Your task to perform on an android device: change the clock style Image 0: 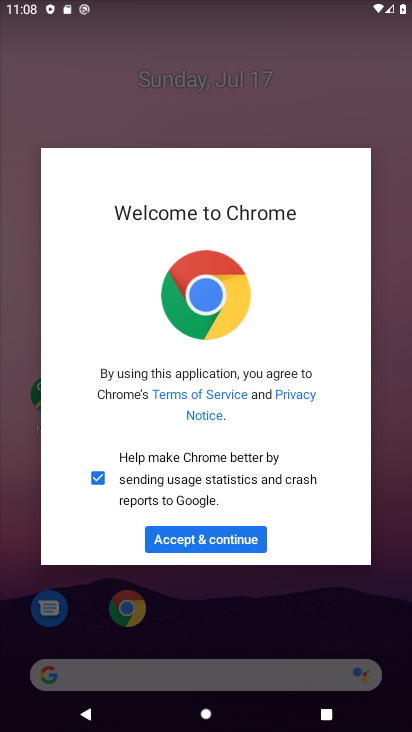
Step 0: press home button
Your task to perform on an android device: change the clock style Image 1: 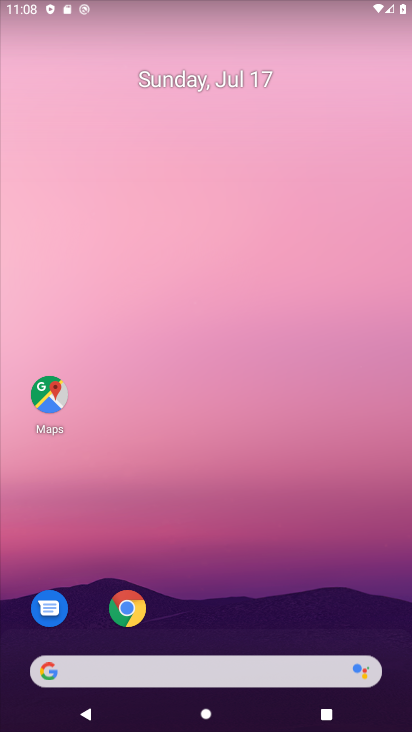
Step 1: drag from (218, 641) to (194, 28)
Your task to perform on an android device: change the clock style Image 2: 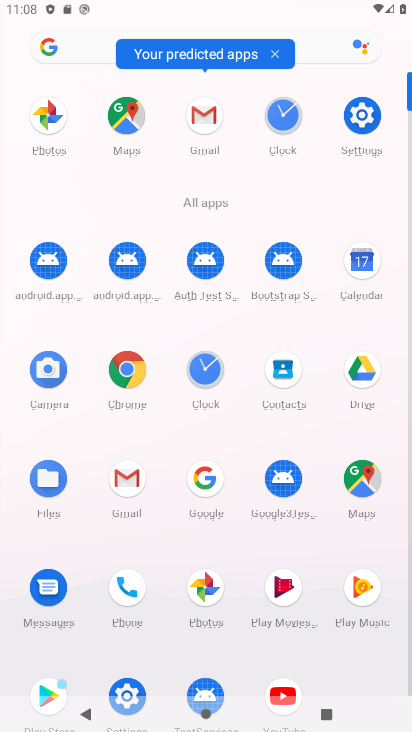
Step 2: click (201, 381)
Your task to perform on an android device: change the clock style Image 3: 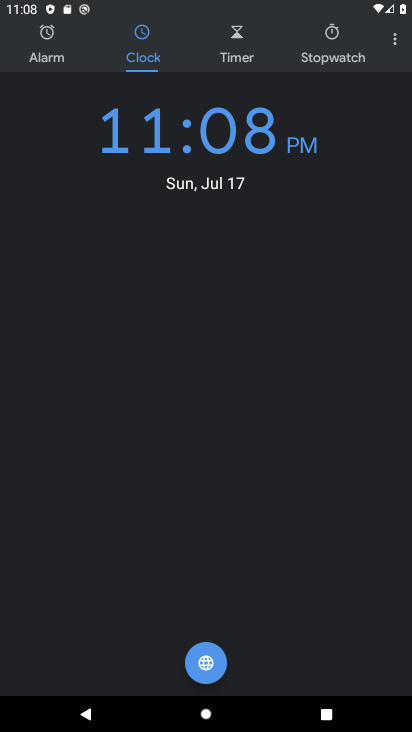
Step 3: click (399, 33)
Your task to perform on an android device: change the clock style Image 4: 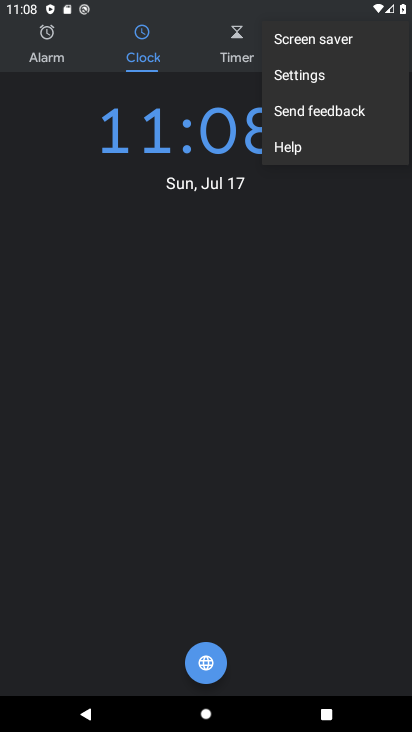
Step 4: click (297, 81)
Your task to perform on an android device: change the clock style Image 5: 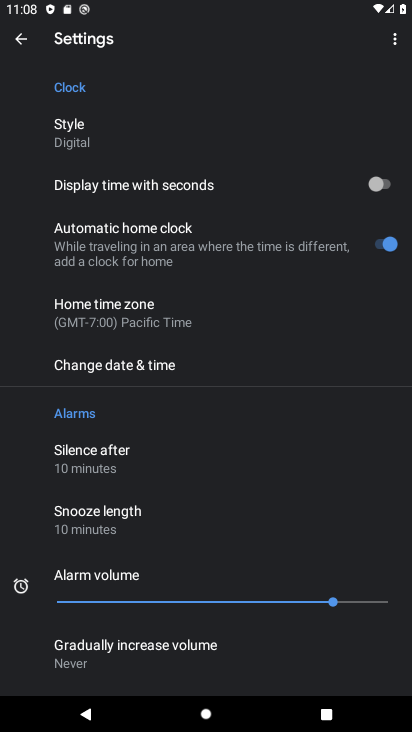
Step 5: click (76, 129)
Your task to perform on an android device: change the clock style Image 6: 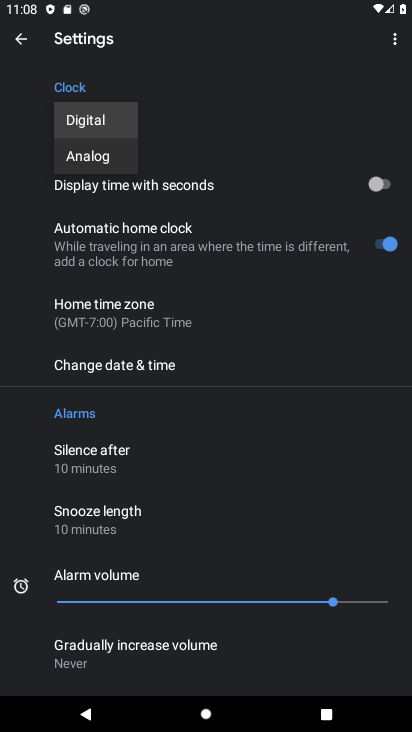
Step 6: click (97, 167)
Your task to perform on an android device: change the clock style Image 7: 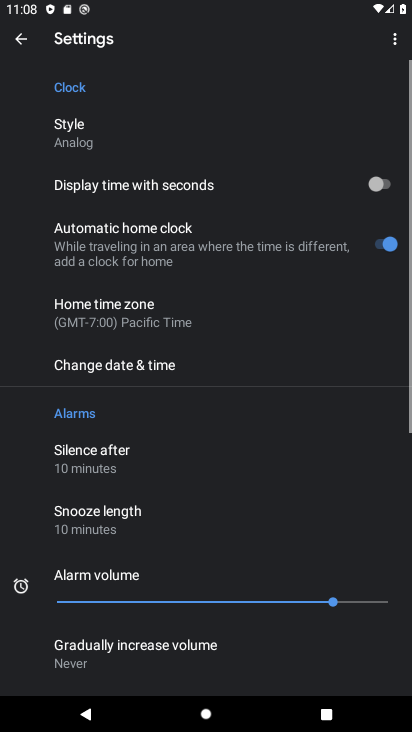
Step 7: task complete